Your task to perform on an android device: turn on the 24-hour format for clock Image 0: 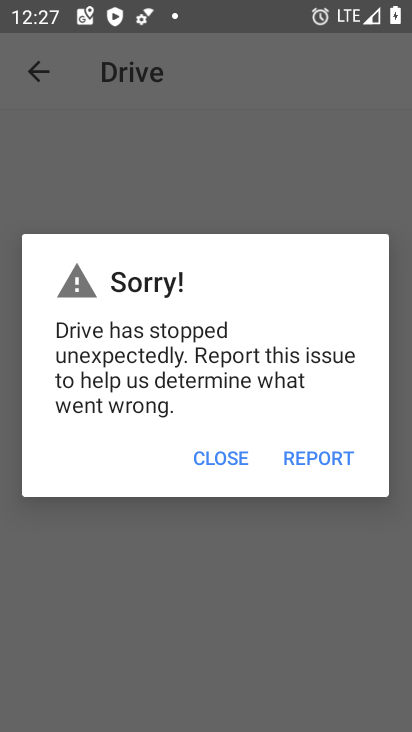
Step 0: press home button
Your task to perform on an android device: turn on the 24-hour format for clock Image 1: 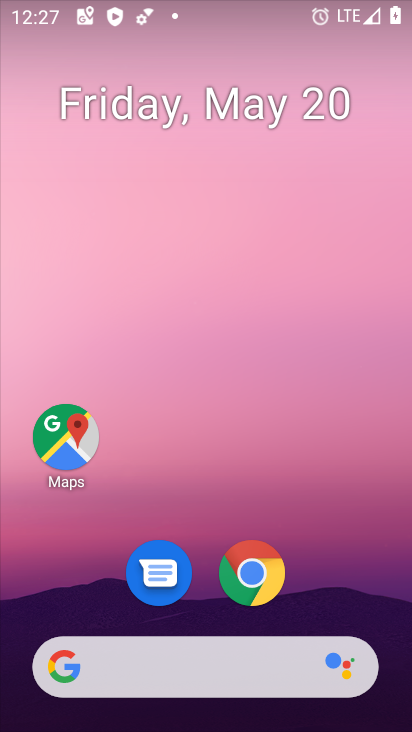
Step 1: drag from (199, 624) to (204, 218)
Your task to perform on an android device: turn on the 24-hour format for clock Image 2: 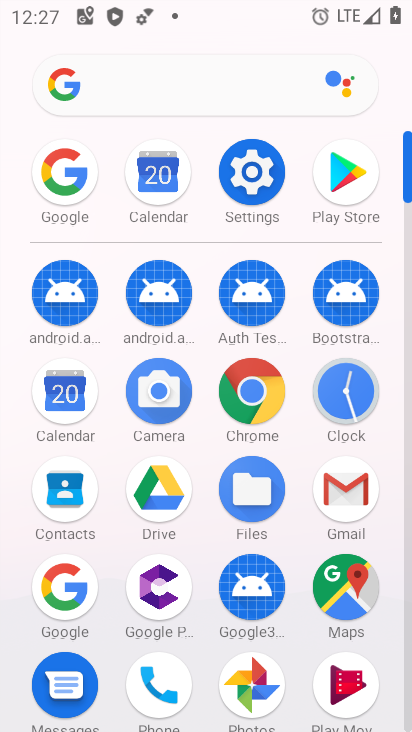
Step 2: click (339, 407)
Your task to perform on an android device: turn on the 24-hour format for clock Image 3: 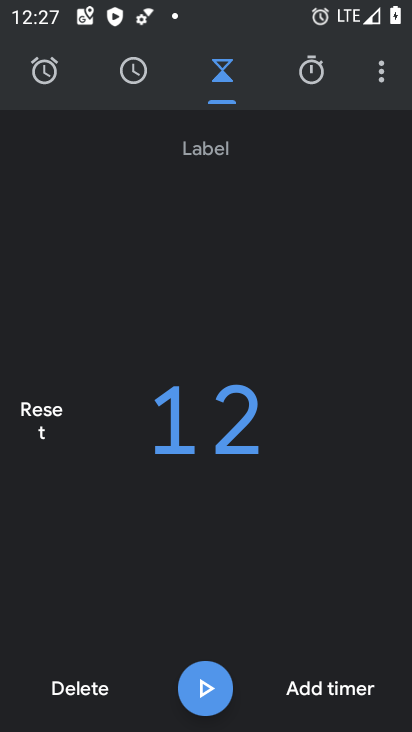
Step 3: click (389, 79)
Your task to perform on an android device: turn on the 24-hour format for clock Image 4: 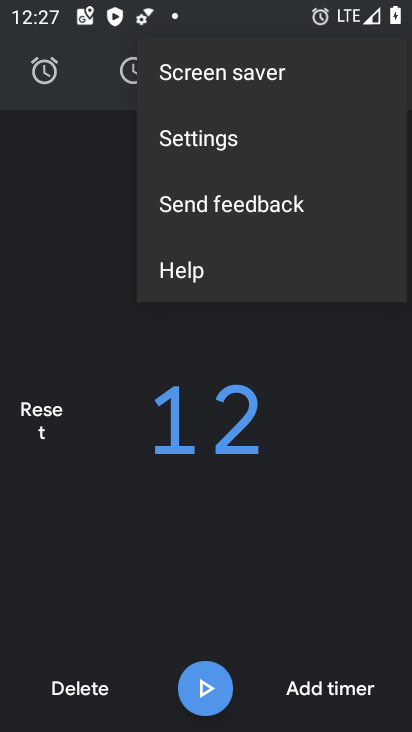
Step 4: click (217, 143)
Your task to perform on an android device: turn on the 24-hour format for clock Image 5: 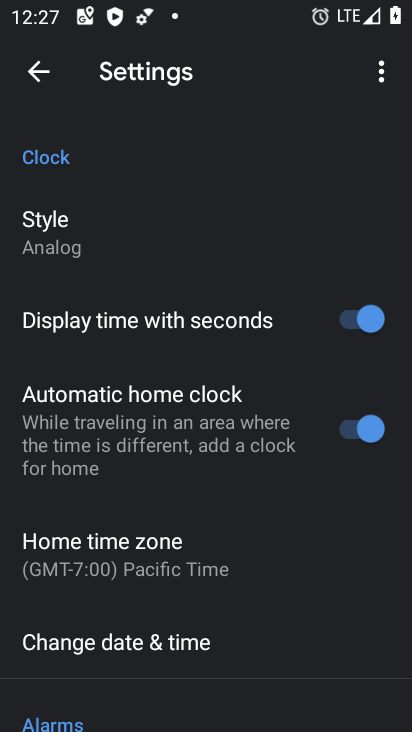
Step 5: drag from (242, 640) to (227, 385)
Your task to perform on an android device: turn on the 24-hour format for clock Image 6: 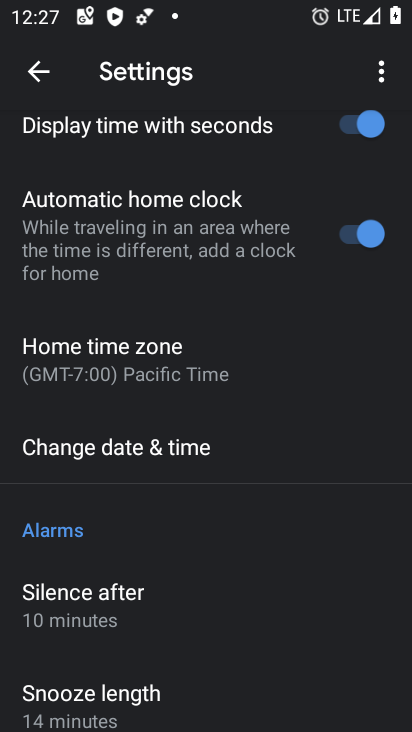
Step 6: click (150, 449)
Your task to perform on an android device: turn on the 24-hour format for clock Image 7: 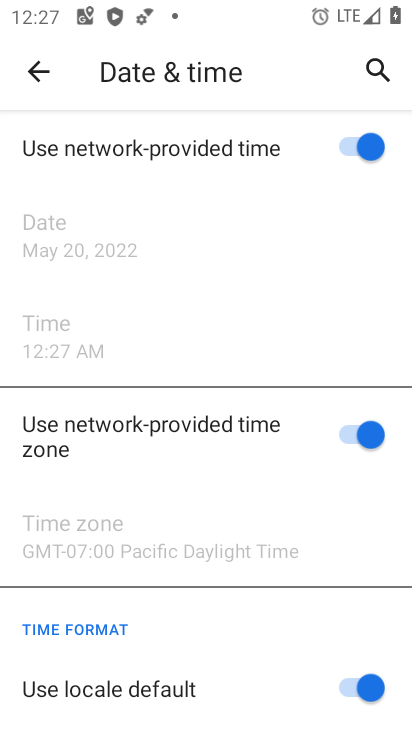
Step 7: drag from (180, 621) to (228, 319)
Your task to perform on an android device: turn on the 24-hour format for clock Image 8: 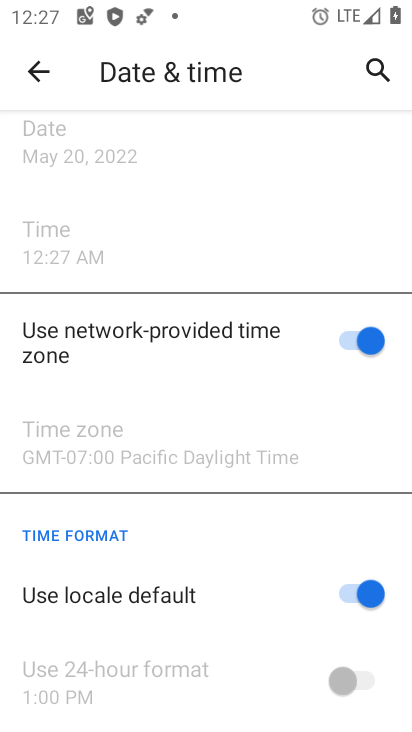
Step 8: drag from (229, 609) to (262, 413)
Your task to perform on an android device: turn on the 24-hour format for clock Image 9: 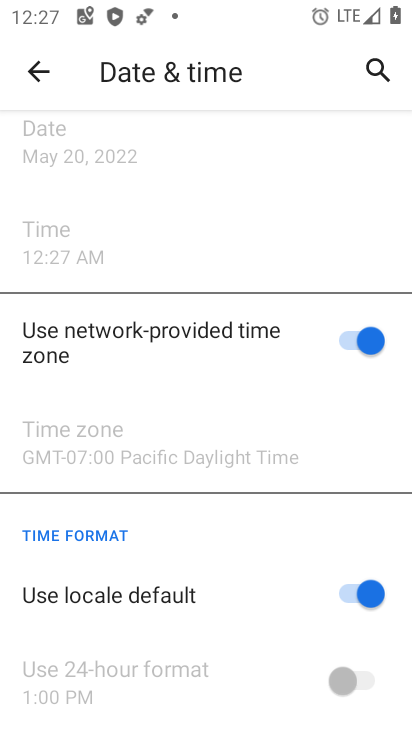
Step 9: click (351, 594)
Your task to perform on an android device: turn on the 24-hour format for clock Image 10: 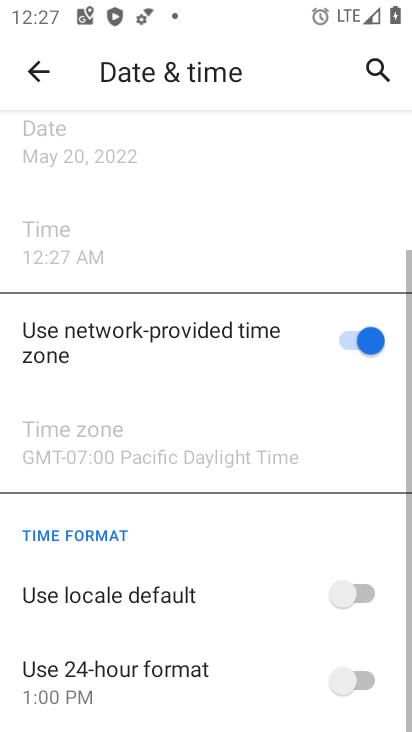
Step 10: click (367, 681)
Your task to perform on an android device: turn on the 24-hour format for clock Image 11: 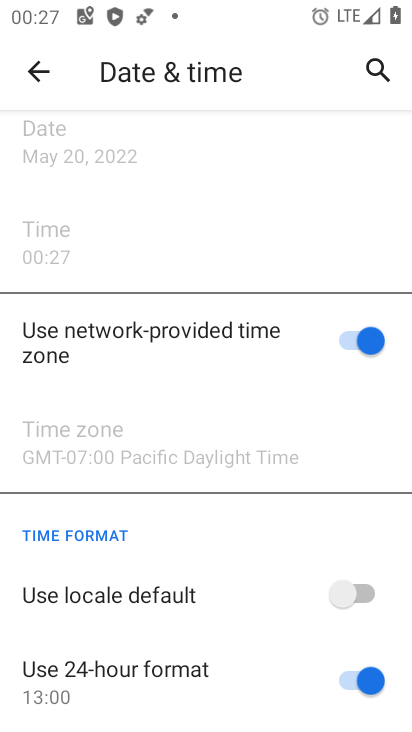
Step 11: task complete